Your task to perform on an android device: Show me popular games on the Play Store Image 0: 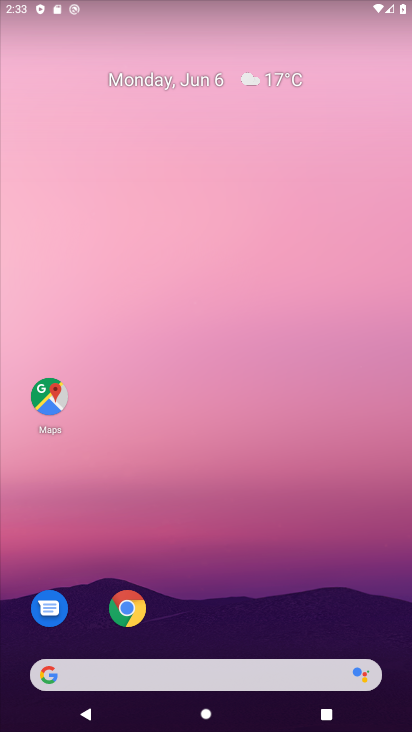
Step 0: drag from (267, 618) to (318, 7)
Your task to perform on an android device: Show me popular games on the Play Store Image 1: 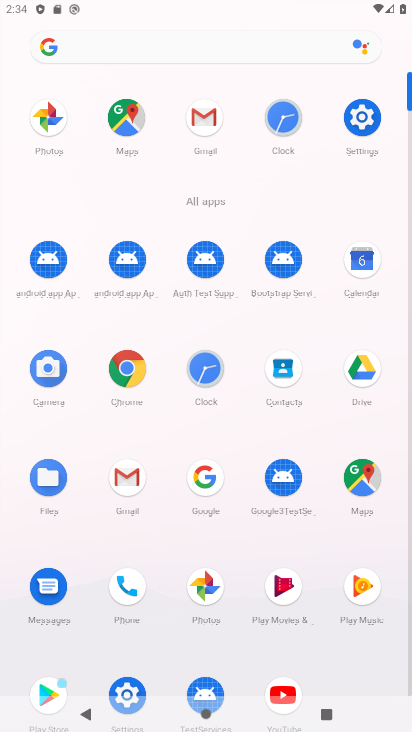
Step 1: click (45, 687)
Your task to perform on an android device: Show me popular games on the Play Store Image 2: 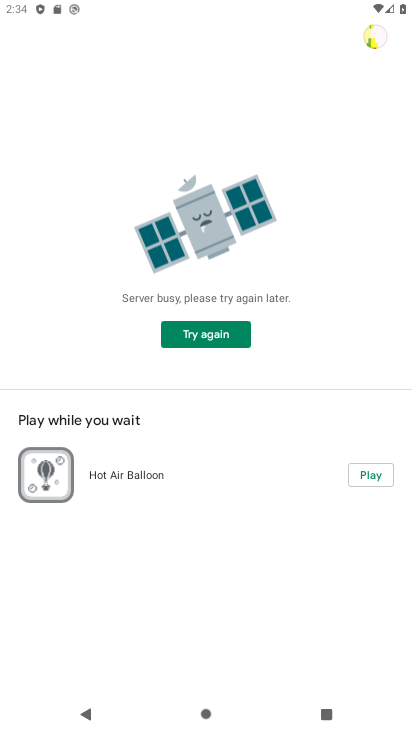
Step 2: click (211, 339)
Your task to perform on an android device: Show me popular games on the Play Store Image 3: 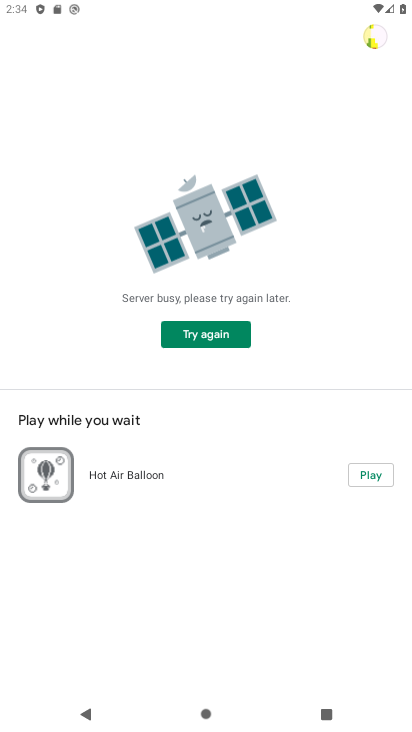
Step 3: click (201, 338)
Your task to perform on an android device: Show me popular games on the Play Store Image 4: 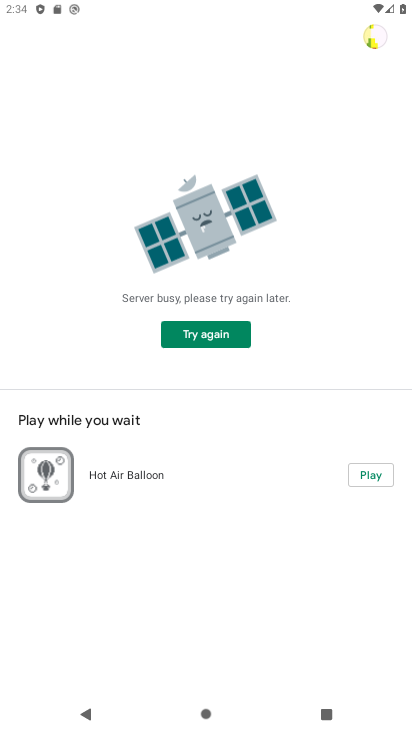
Step 4: task complete